Your task to perform on an android device: find photos in the google photos app Image 0: 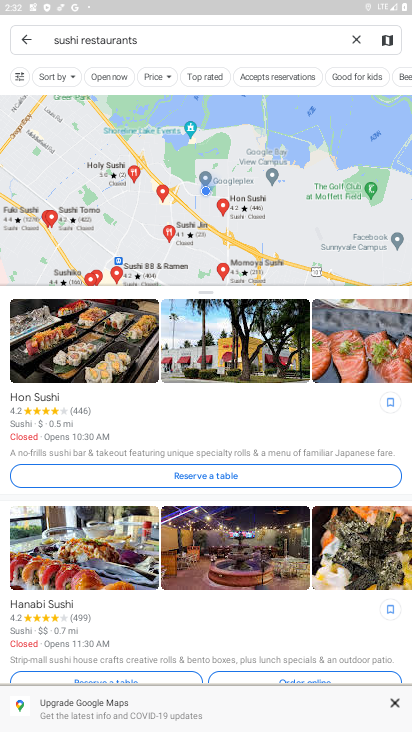
Step 0: press home button
Your task to perform on an android device: find photos in the google photos app Image 1: 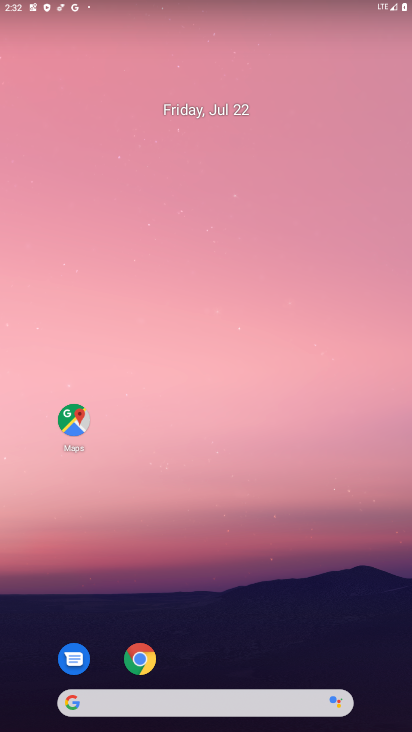
Step 1: drag from (186, 529) to (150, 223)
Your task to perform on an android device: find photos in the google photos app Image 2: 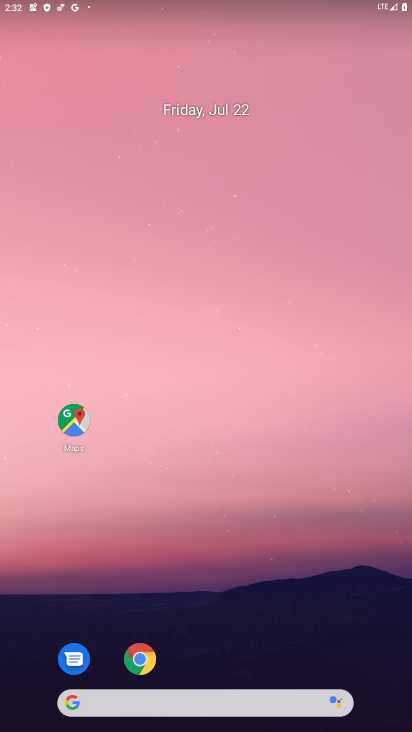
Step 2: drag from (213, 643) to (182, 326)
Your task to perform on an android device: find photos in the google photos app Image 3: 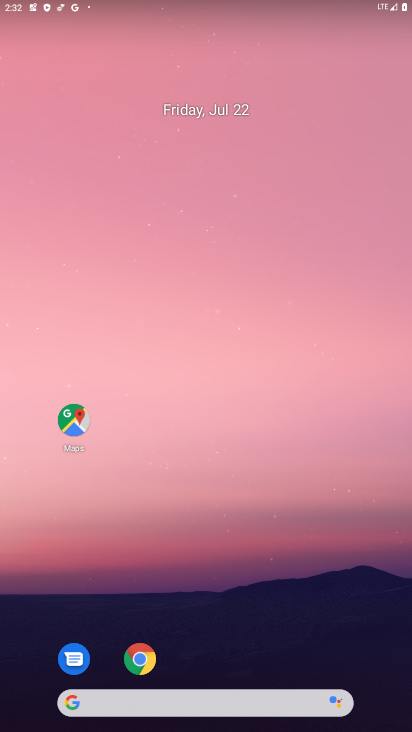
Step 3: drag from (205, 549) to (183, 136)
Your task to perform on an android device: find photos in the google photos app Image 4: 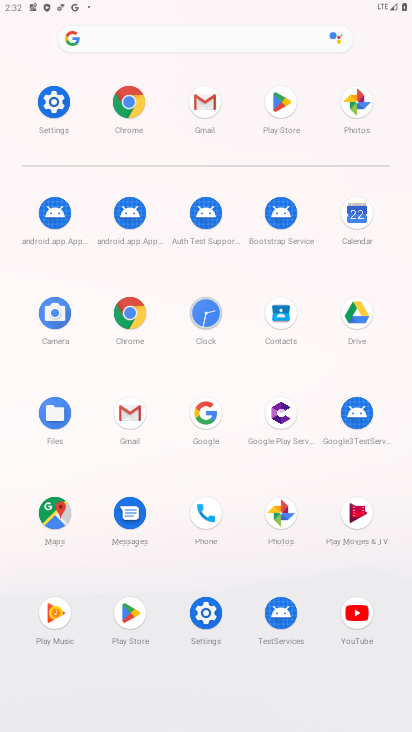
Step 4: click (282, 532)
Your task to perform on an android device: find photos in the google photos app Image 5: 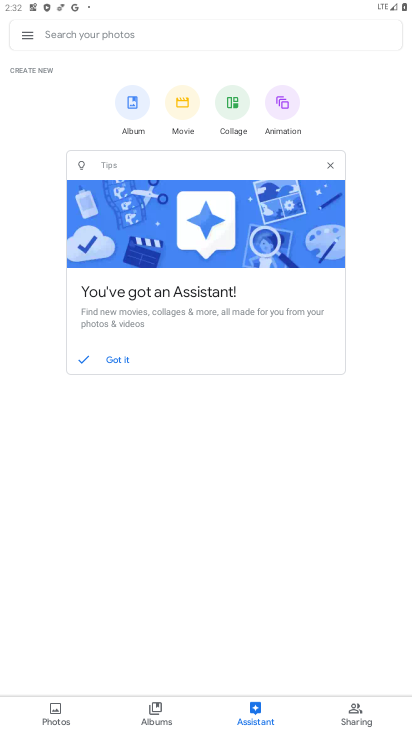
Step 5: click (49, 708)
Your task to perform on an android device: find photos in the google photos app Image 6: 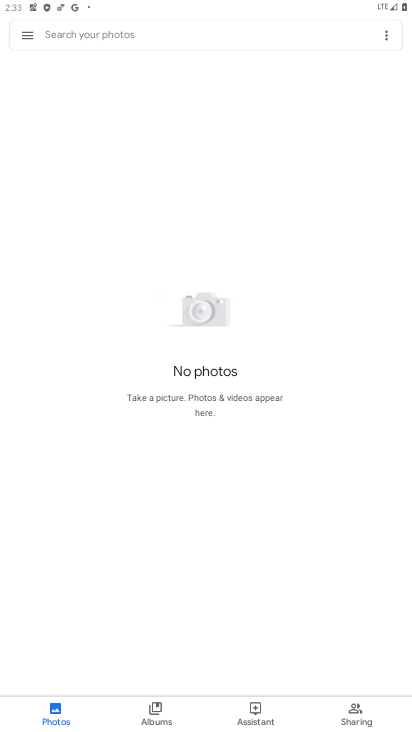
Step 6: task complete